Your task to perform on an android device: choose inbox layout in the gmail app Image 0: 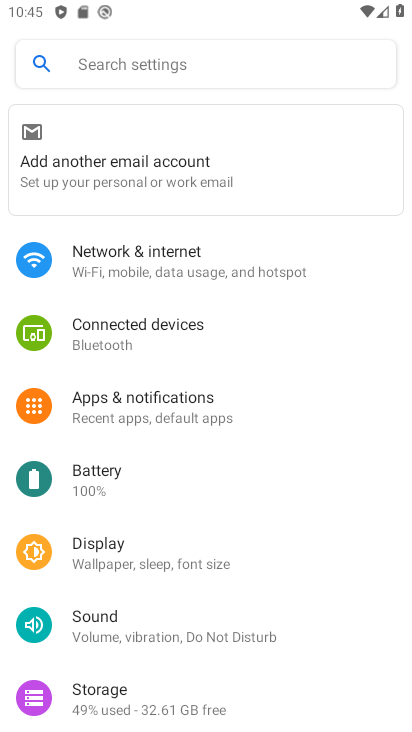
Step 0: drag from (265, 601) to (235, 308)
Your task to perform on an android device: choose inbox layout in the gmail app Image 1: 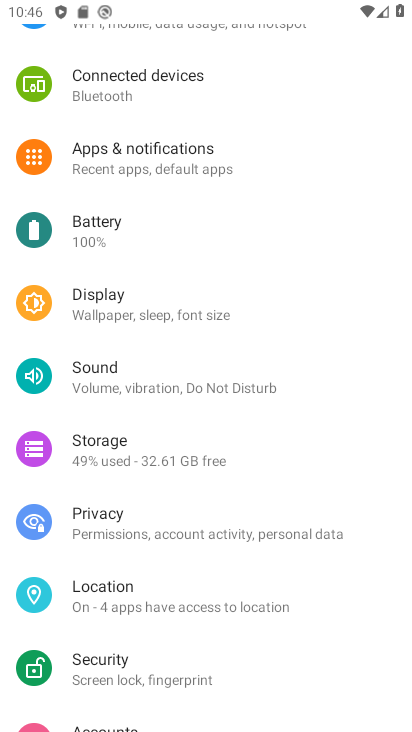
Step 1: press home button
Your task to perform on an android device: choose inbox layout in the gmail app Image 2: 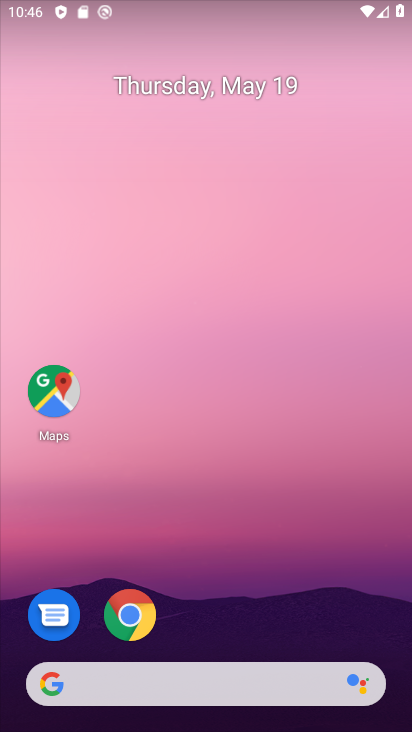
Step 2: drag from (298, 573) to (249, 187)
Your task to perform on an android device: choose inbox layout in the gmail app Image 3: 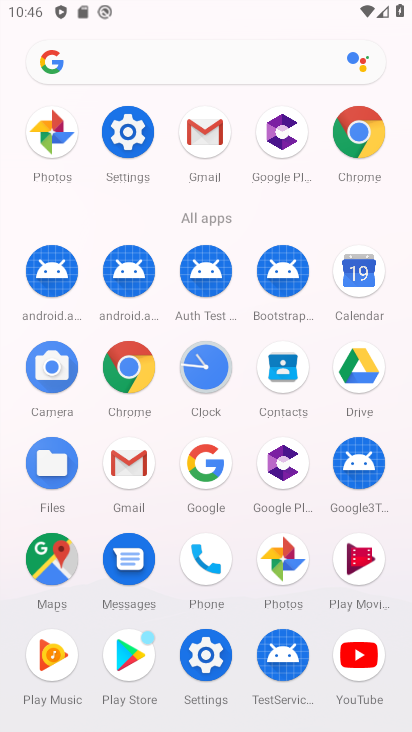
Step 3: click (119, 473)
Your task to perform on an android device: choose inbox layout in the gmail app Image 4: 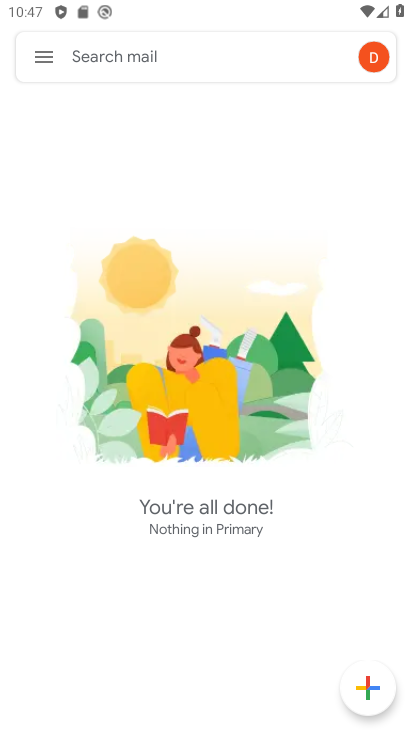
Step 4: click (47, 53)
Your task to perform on an android device: choose inbox layout in the gmail app Image 5: 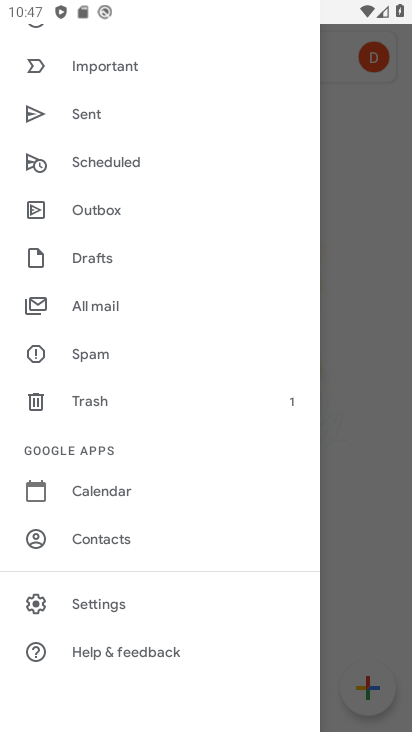
Step 5: click (112, 596)
Your task to perform on an android device: choose inbox layout in the gmail app Image 6: 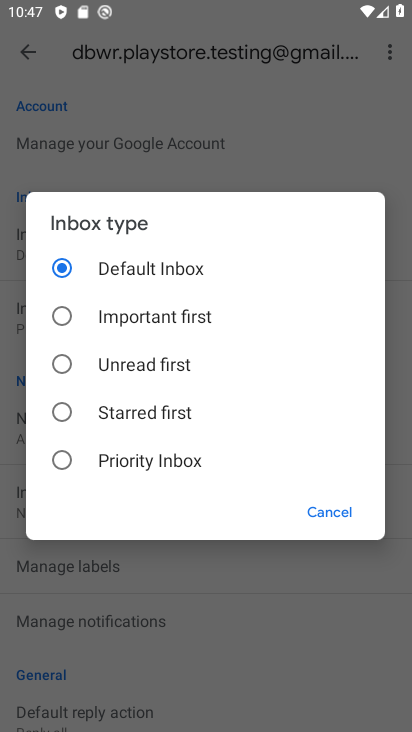
Step 6: click (137, 371)
Your task to perform on an android device: choose inbox layout in the gmail app Image 7: 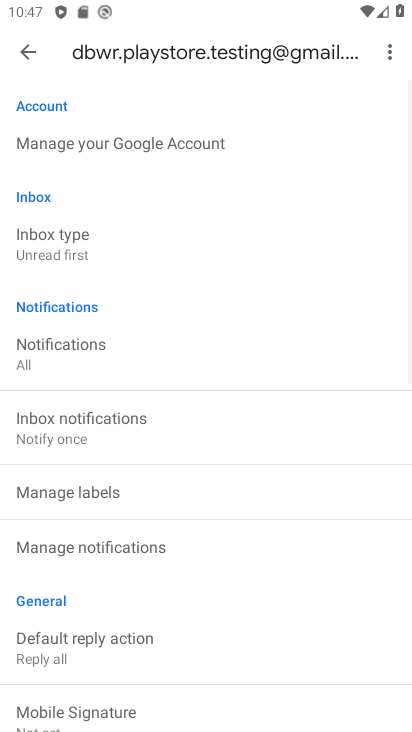
Step 7: task complete